Your task to perform on an android device: change keyboard looks Image 0: 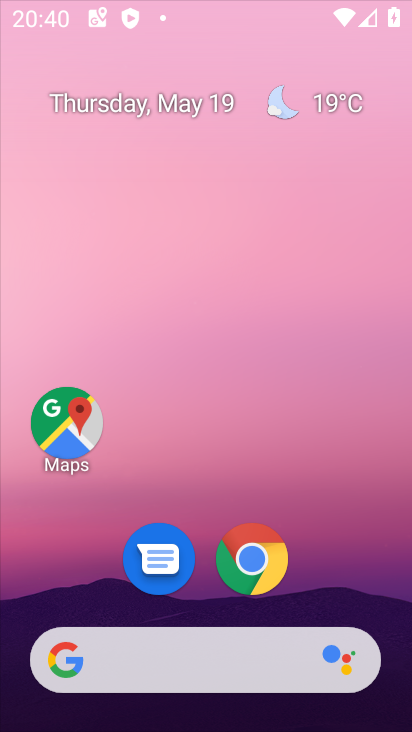
Step 0: click (112, 139)
Your task to perform on an android device: change keyboard looks Image 1: 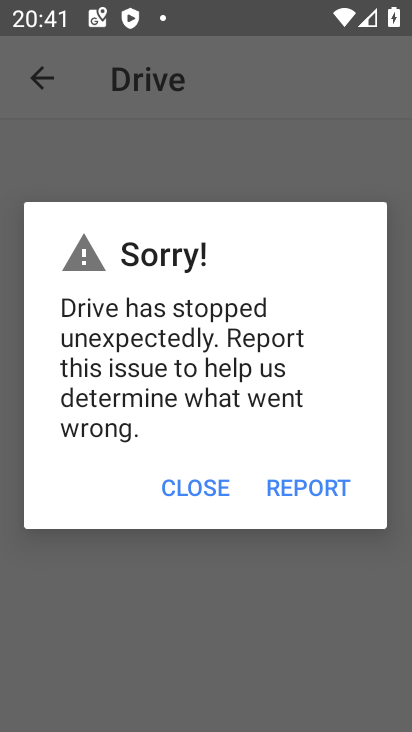
Step 1: press home button
Your task to perform on an android device: change keyboard looks Image 2: 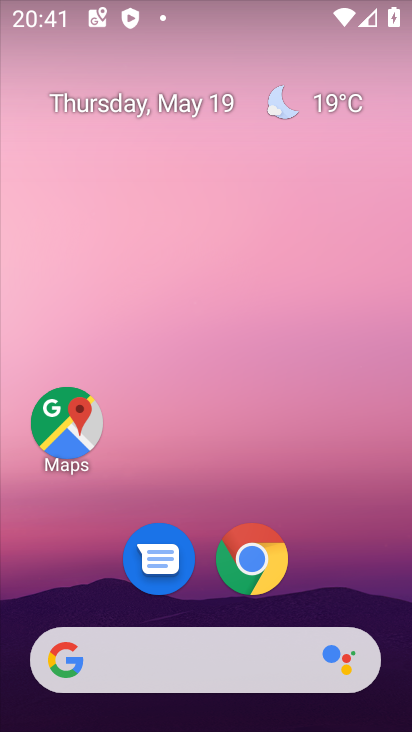
Step 2: drag from (240, 638) to (309, 166)
Your task to perform on an android device: change keyboard looks Image 3: 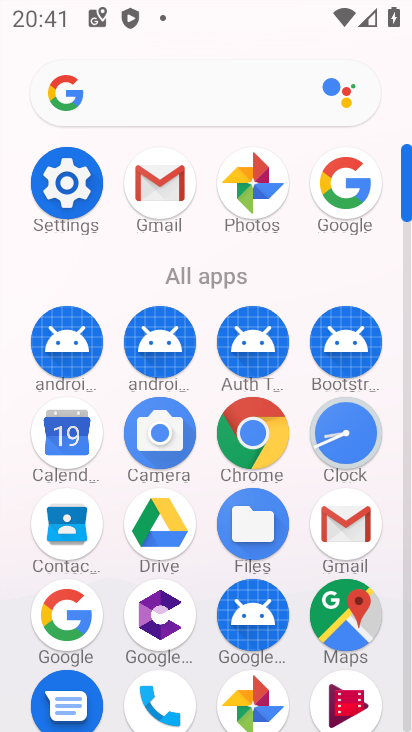
Step 3: click (41, 199)
Your task to perform on an android device: change keyboard looks Image 4: 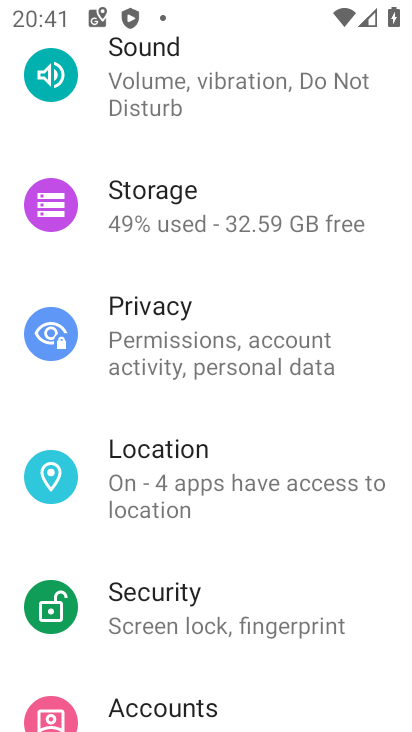
Step 4: drag from (180, 672) to (178, 14)
Your task to perform on an android device: change keyboard looks Image 5: 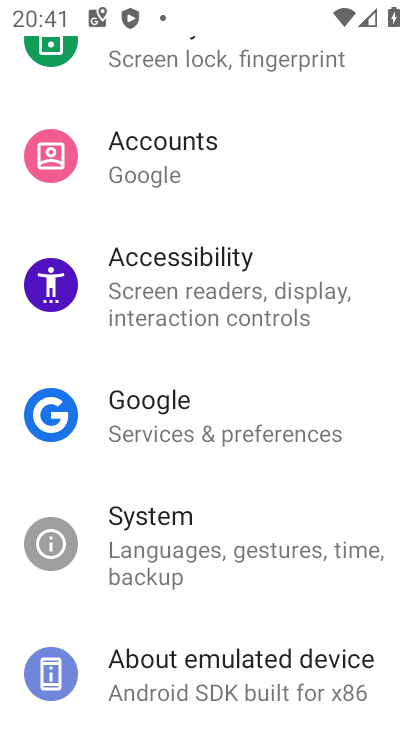
Step 5: click (246, 568)
Your task to perform on an android device: change keyboard looks Image 6: 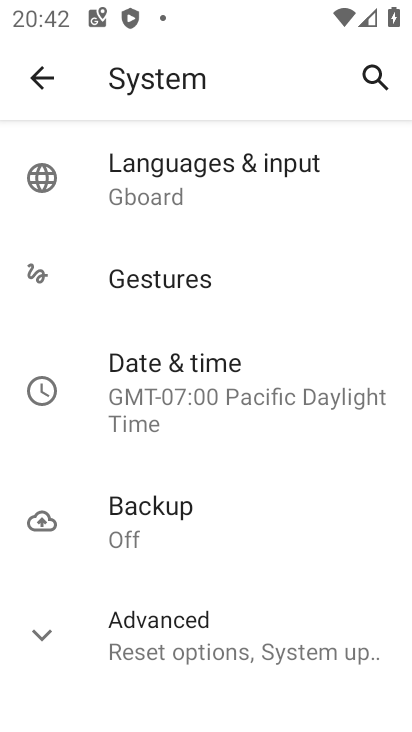
Step 6: click (139, 202)
Your task to perform on an android device: change keyboard looks Image 7: 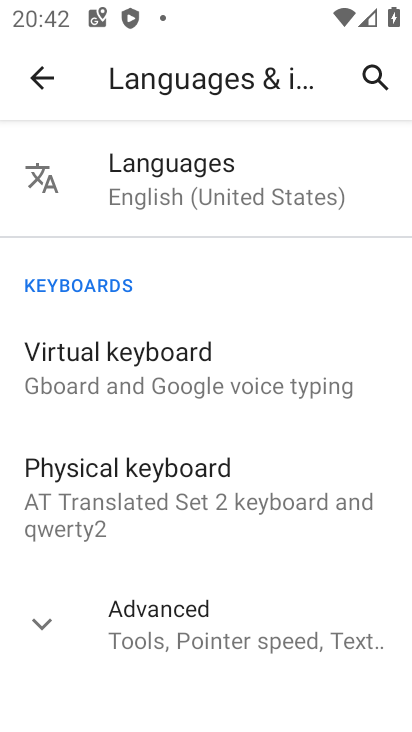
Step 7: click (130, 390)
Your task to perform on an android device: change keyboard looks Image 8: 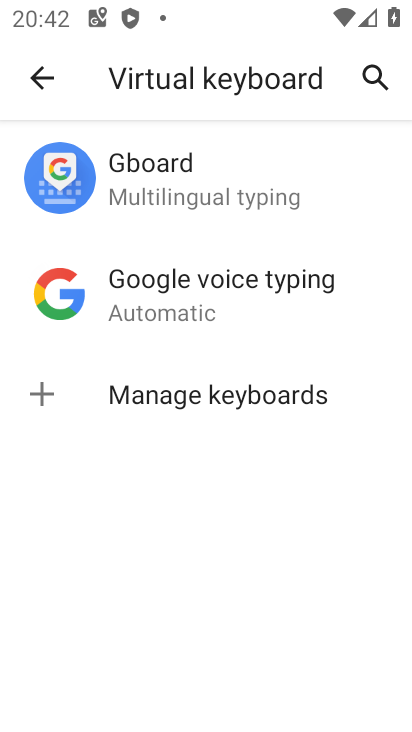
Step 8: click (152, 149)
Your task to perform on an android device: change keyboard looks Image 9: 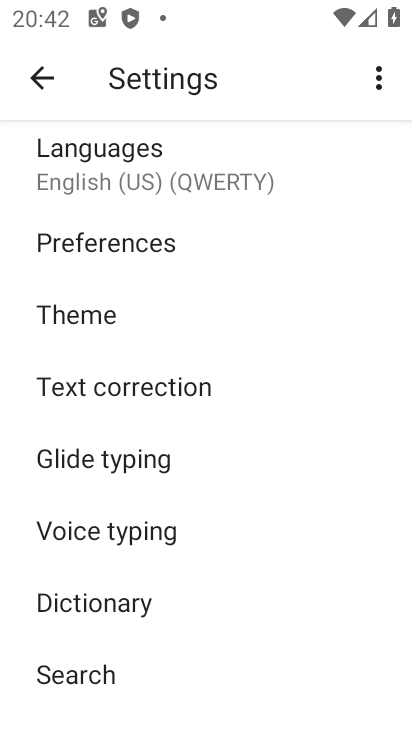
Step 9: click (114, 315)
Your task to perform on an android device: change keyboard looks Image 10: 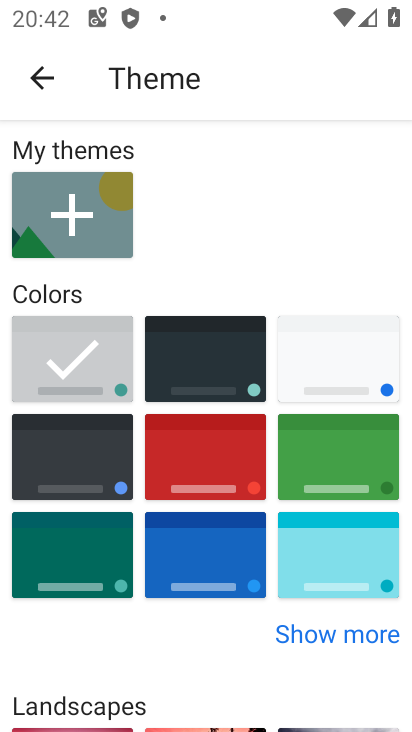
Step 10: click (196, 398)
Your task to perform on an android device: change keyboard looks Image 11: 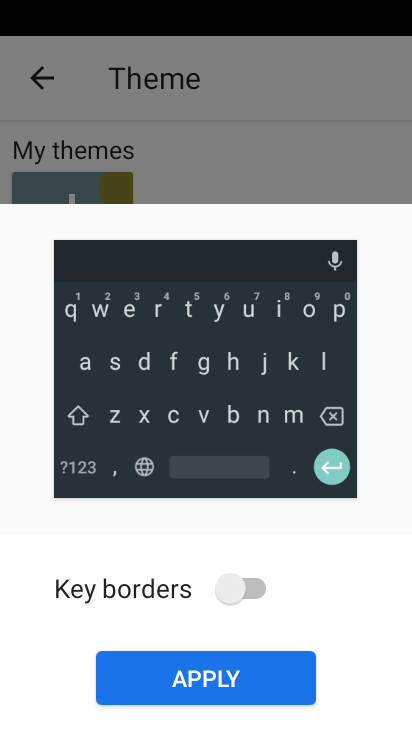
Step 11: click (244, 666)
Your task to perform on an android device: change keyboard looks Image 12: 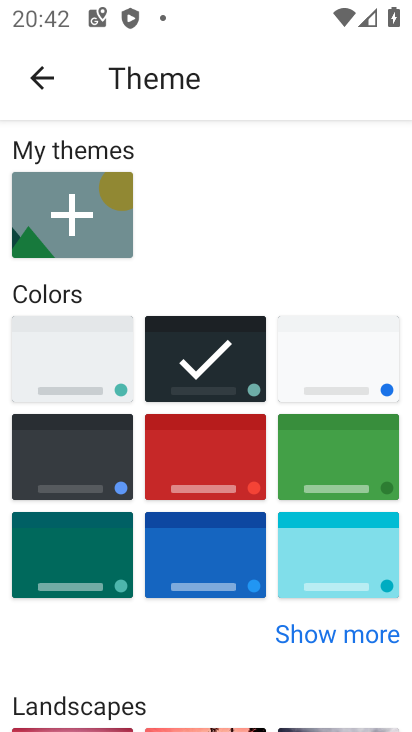
Step 12: task complete